Your task to perform on an android device: What's the weather? Image 0: 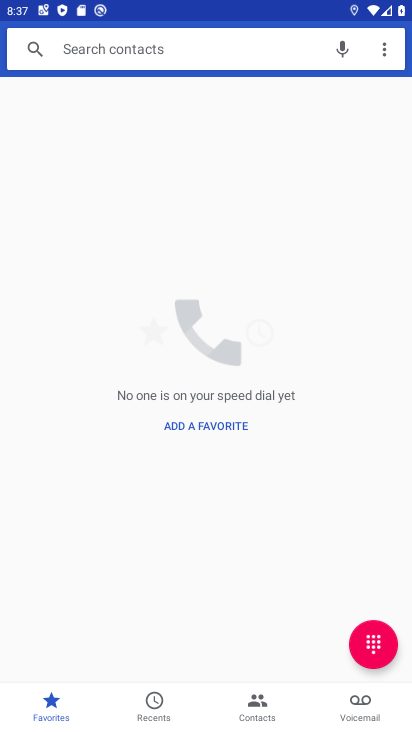
Step 0: press home button
Your task to perform on an android device: What's the weather? Image 1: 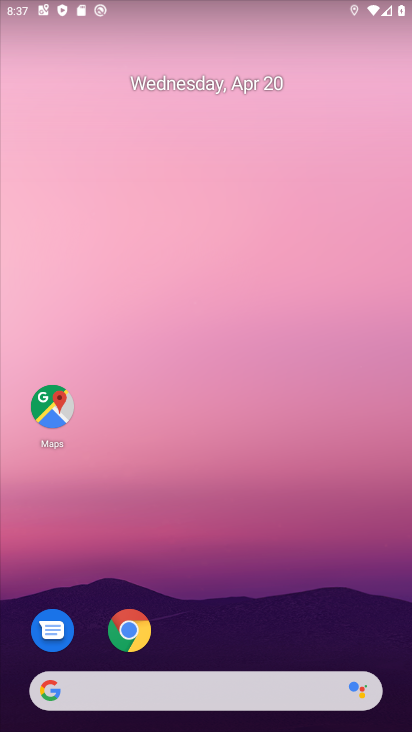
Step 1: click (153, 684)
Your task to perform on an android device: What's the weather? Image 2: 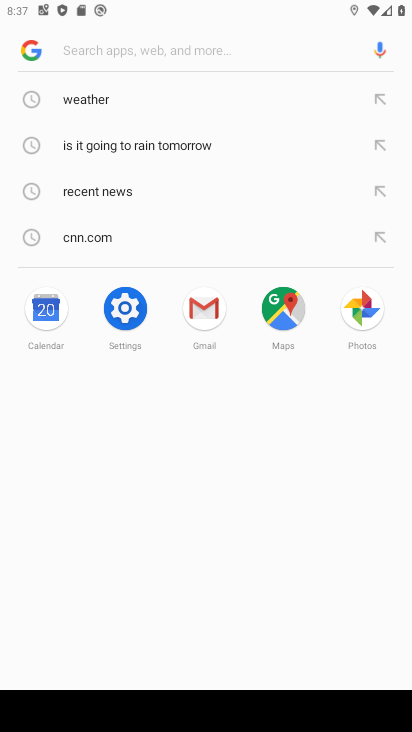
Step 2: click (96, 86)
Your task to perform on an android device: What's the weather? Image 3: 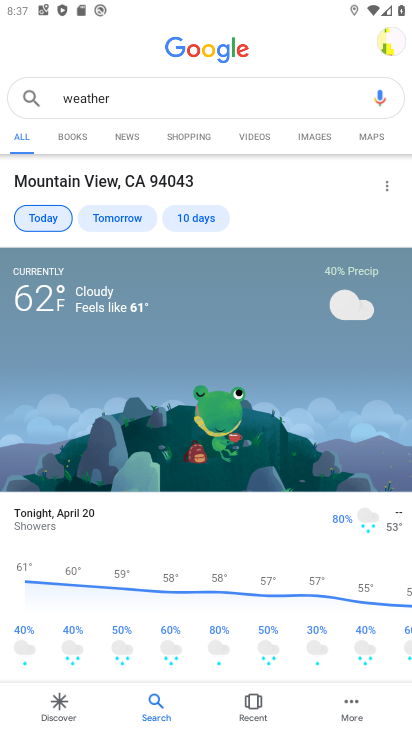
Step 3: task complete